Your task to perform on an android device: Go to Google maps Image 0: 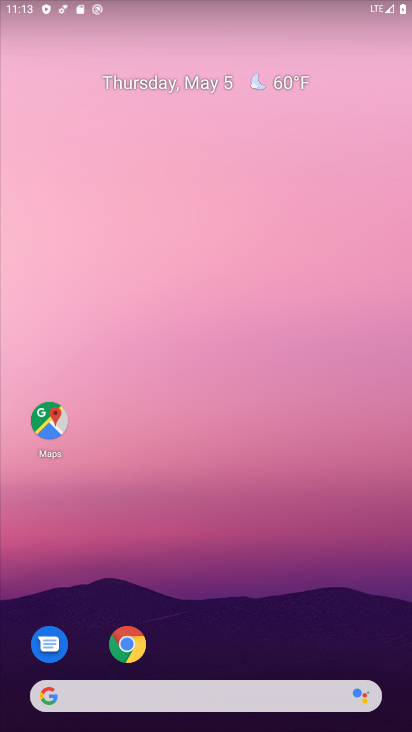
Step 0: drag from (343, 606) to (356, 77)
Your task to perform on an android device: Go to Google maps Image 1: 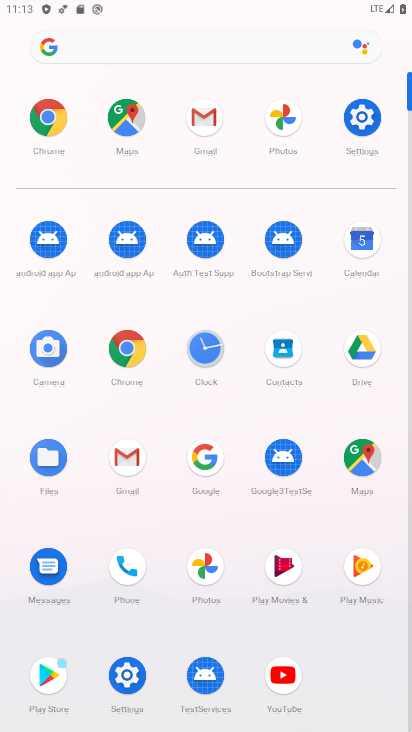
Step 1: click (376, 464)
Your task to perform on an android device: Go to Google maps Image 2: 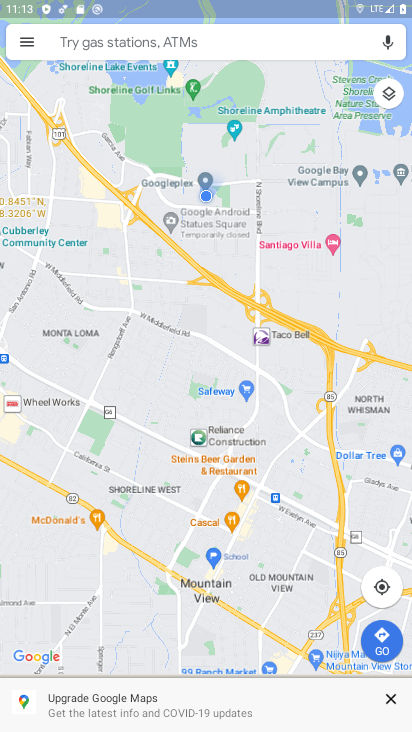
Step 2: task complete